Your task to perform on an android device: check storage Image 0: 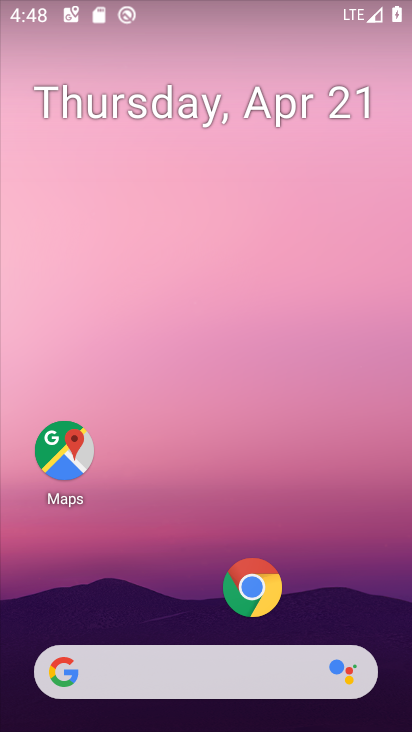
Step 0: drag from (117, 629) to (247, 138)
Your task to perform on an android device: check storage Image 1: 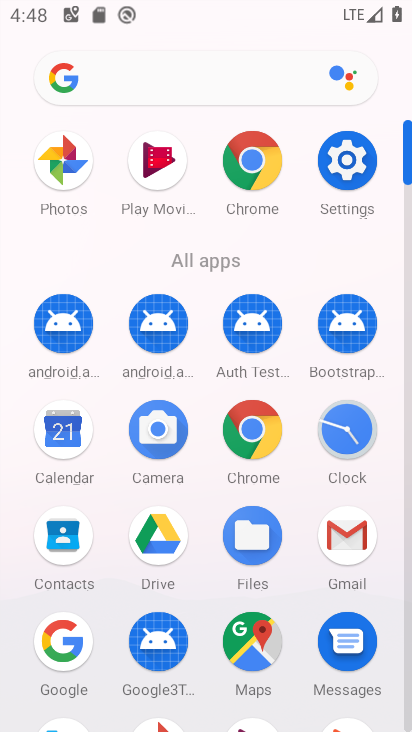
Step 1: click (347, 158)
Your task to perform on an android device: check storage Image 2: 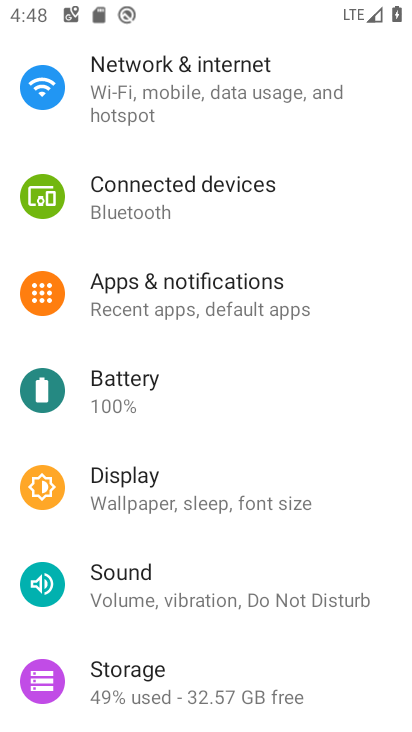
Step 2: click (179, 688)
Your task to perform on an android device: check storage Image 3: 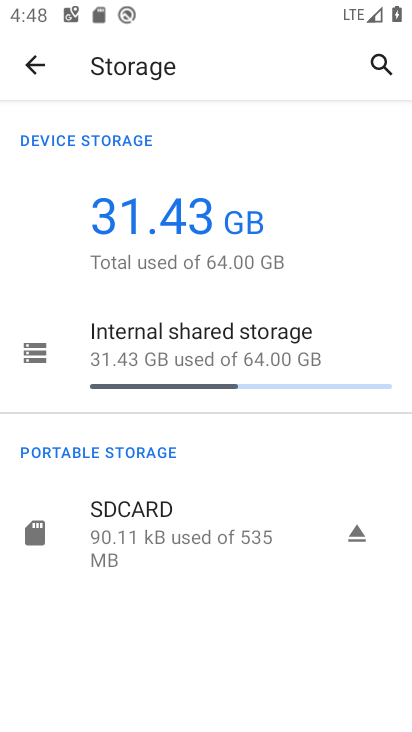
Step 3: click (244, 373)
Your task to perform on an android device: check storage Image 4: 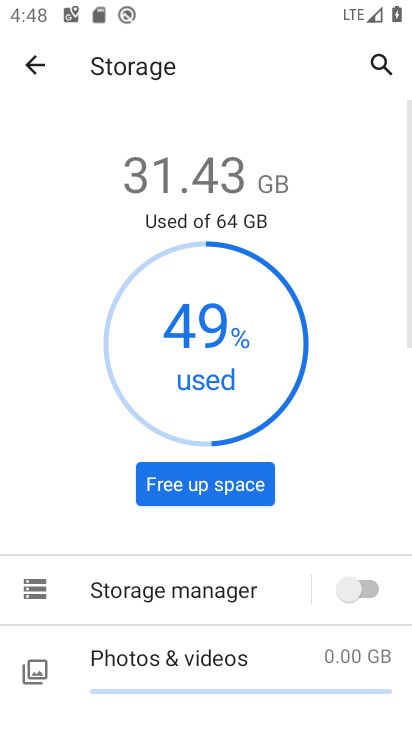
Step 4: task complete